Your task to perform on an android device: empty trash in google photos Image 0: 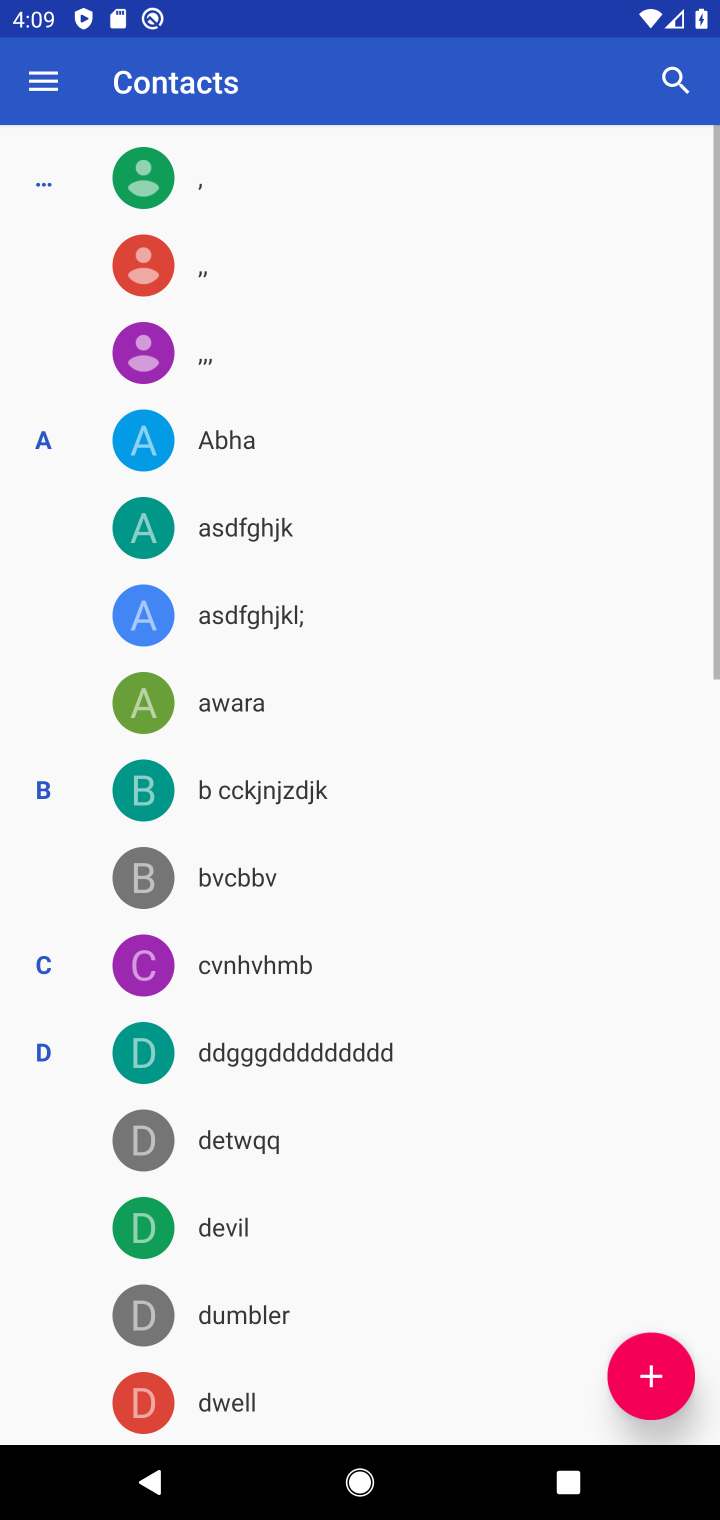
Step 0: drag from (324, 1118) to (346, 22)
Your task to perform on an android device: empty trash in google photos Image 1: 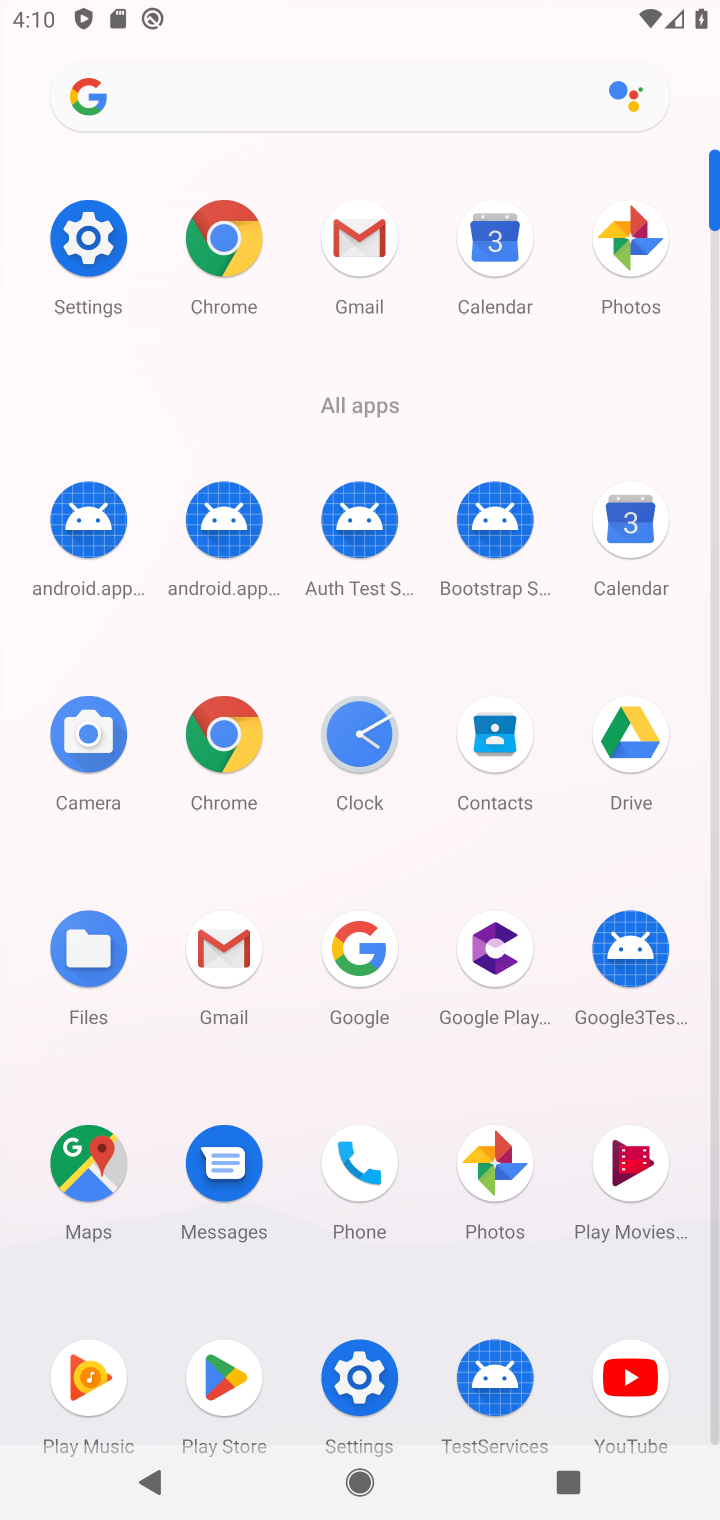
Step 1: click (502, 1175)
Your task to perform on an android device: empty trash in google photos Image 2: 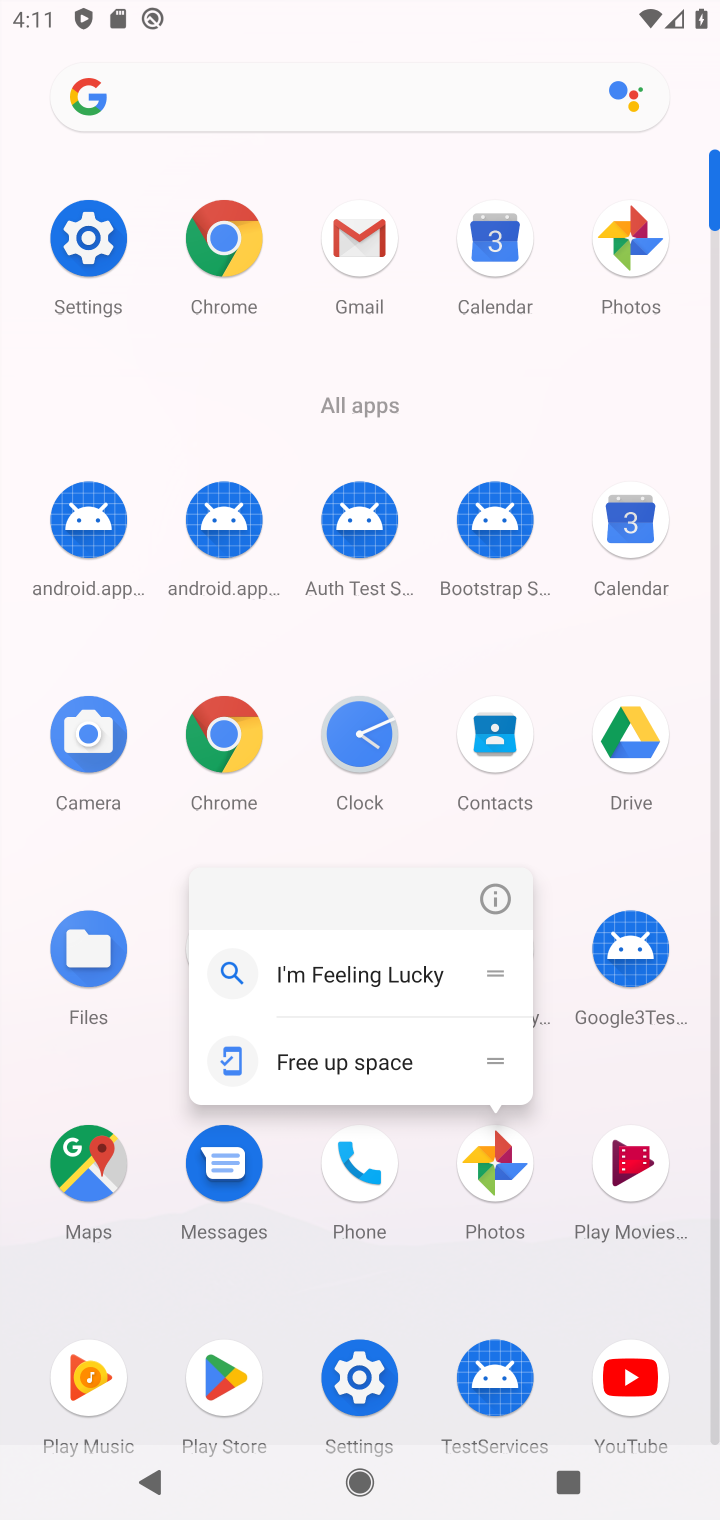
Step 2: click (489, 1197)
Your task to perform on an android device: empty trash in google photos Image 3: 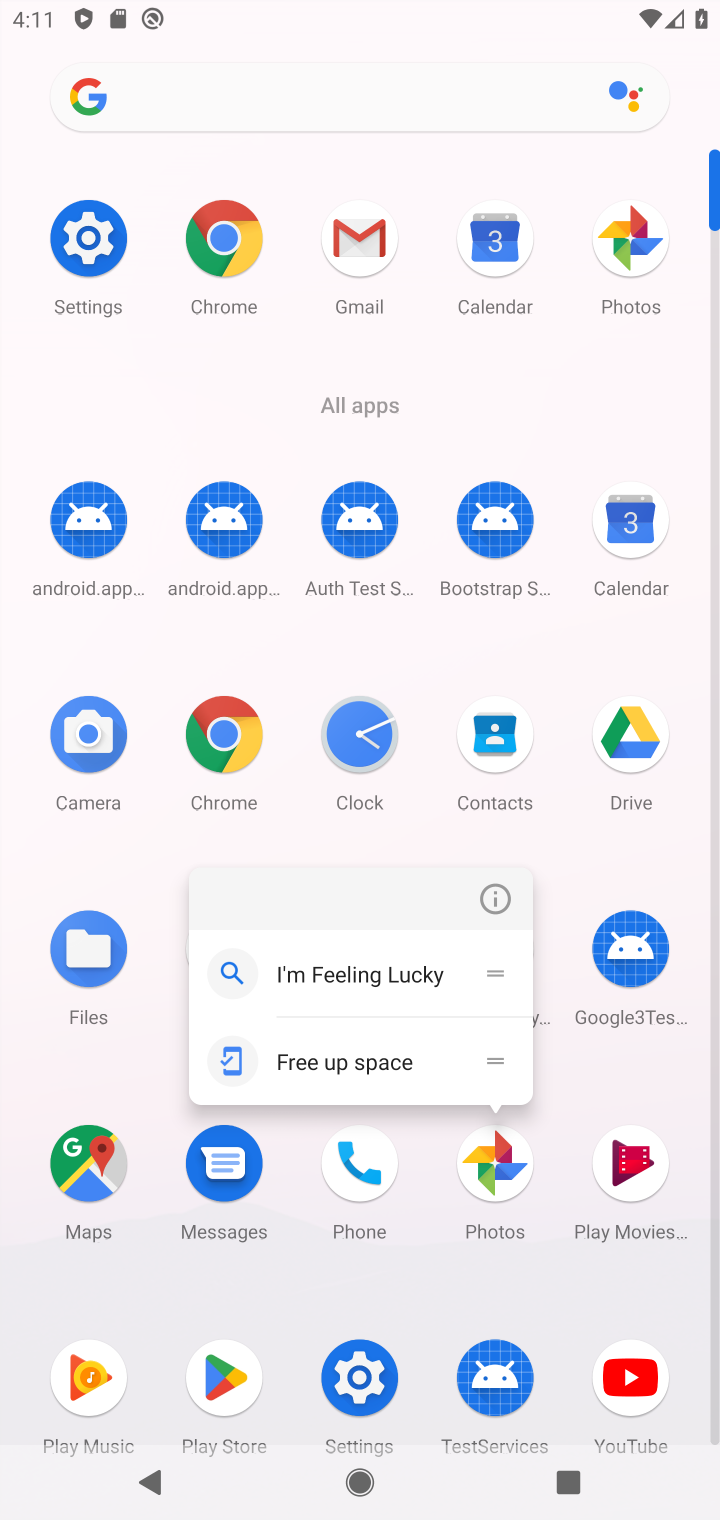
Step 3: click (498, 1168)
Your task to perform on an android device: empty trash in google photos Image 4: 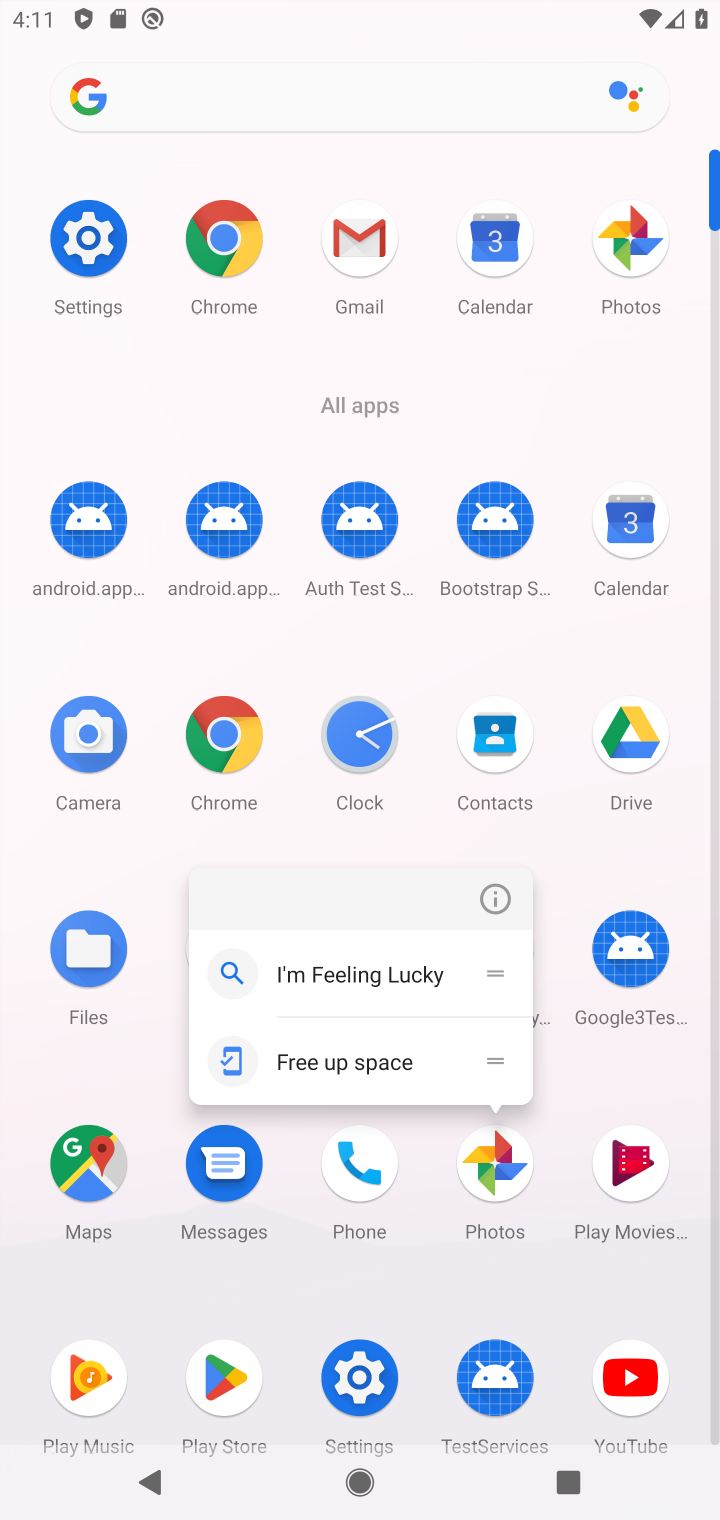
Step 4: click (491, 1166)
Your task to perform on an android device: empty trash in google photos Image 5: 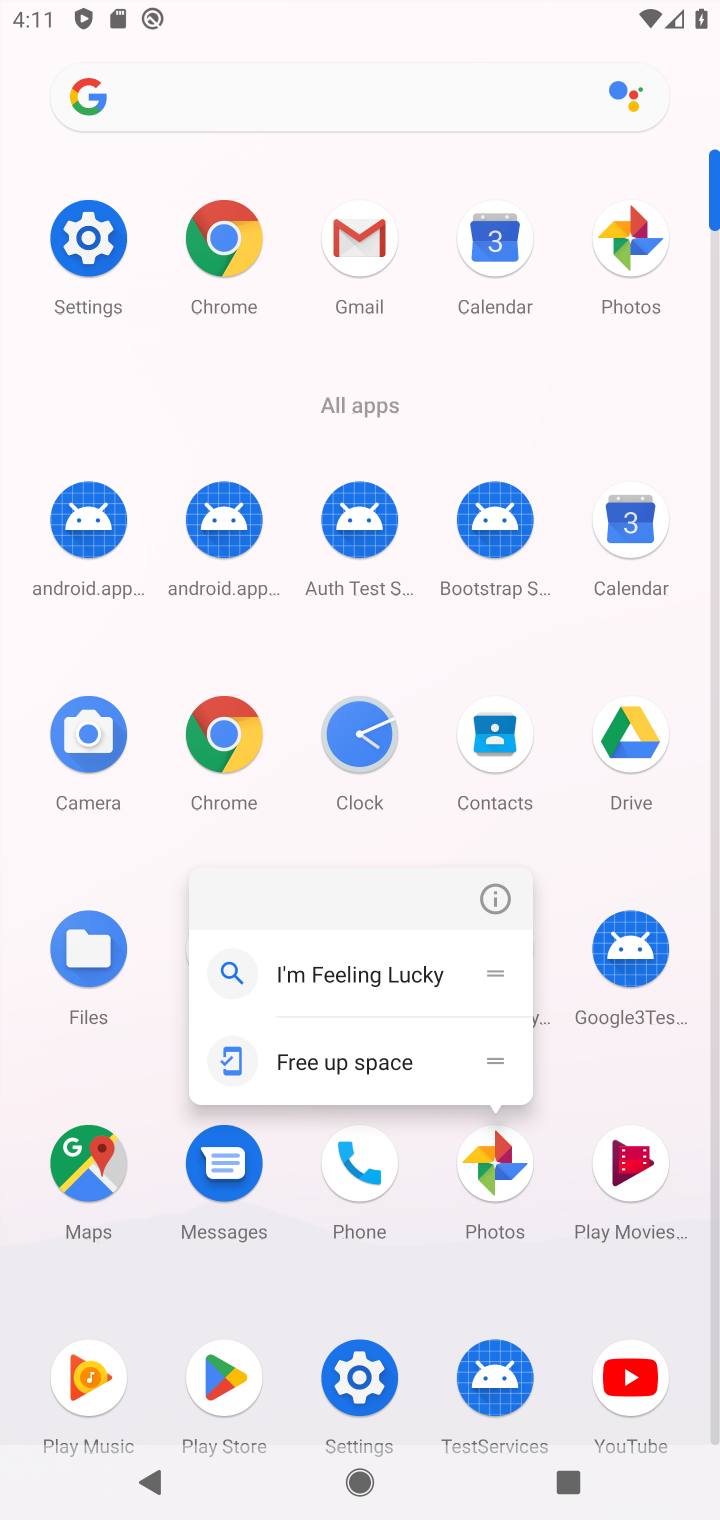
Step 5: click (505, 1166)
Your task to perform on an android device: empty trash in google photos Image 6: 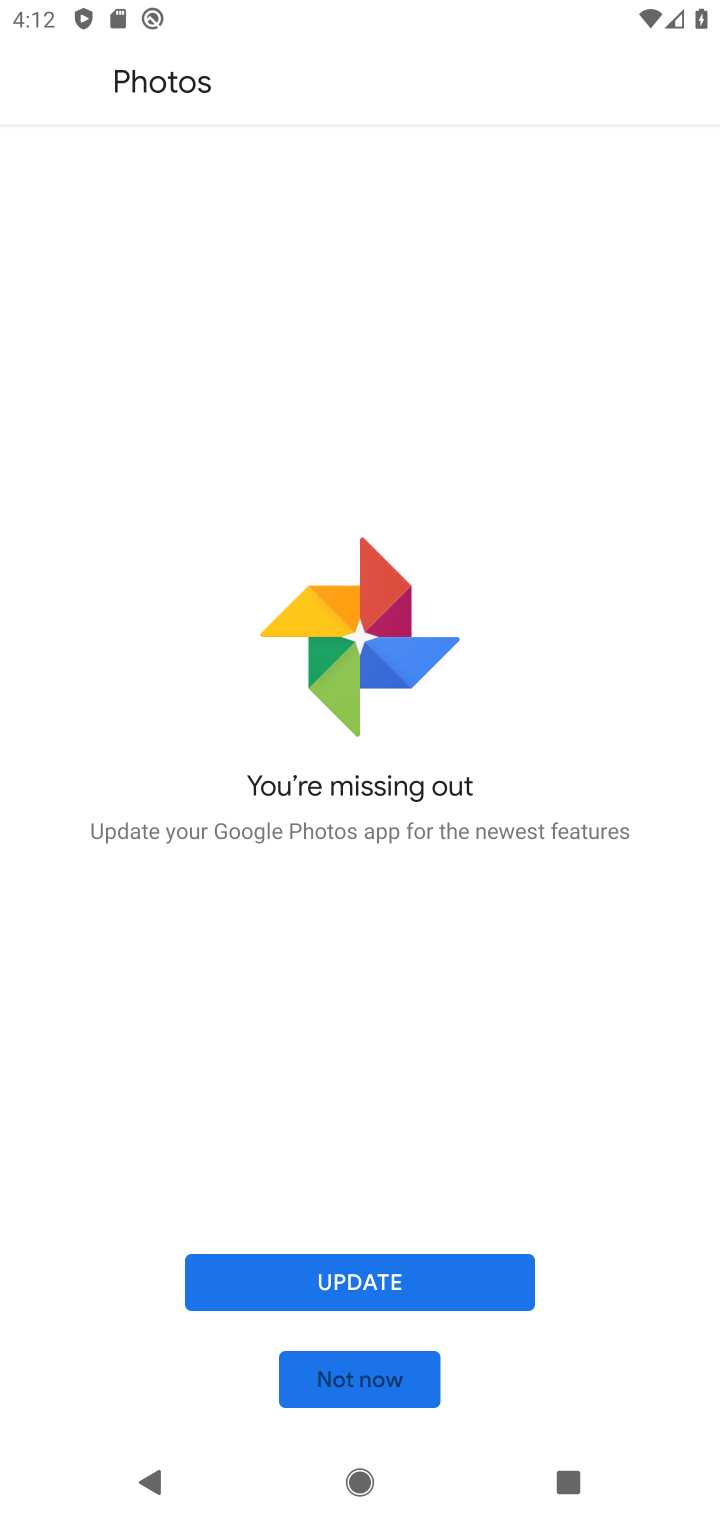
Step 6: click (330, 1352)
Your task to perform on an android device: empty trash in google photos Image 7: 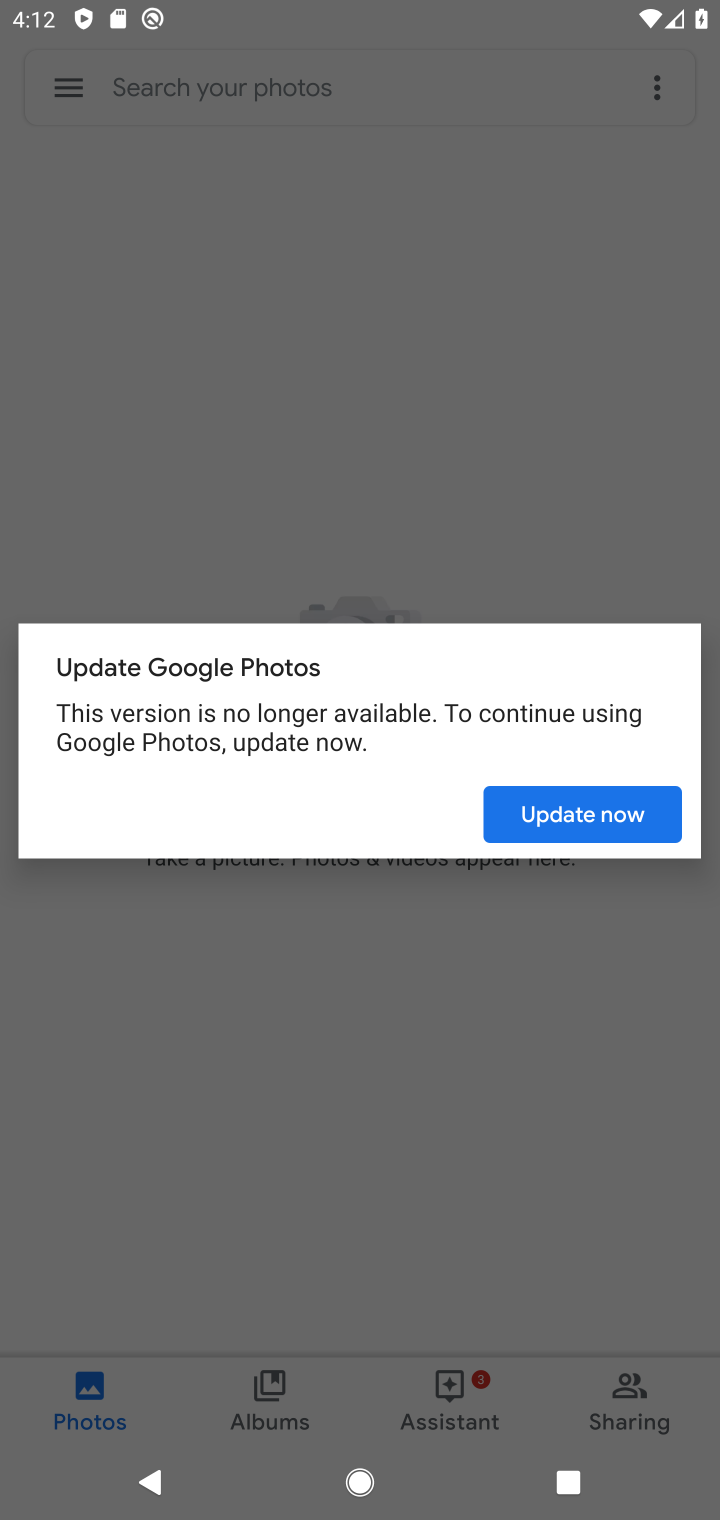
Step 7: click (603, 791)
Your task to perform on an android device: empty trash in google photos Image 8: 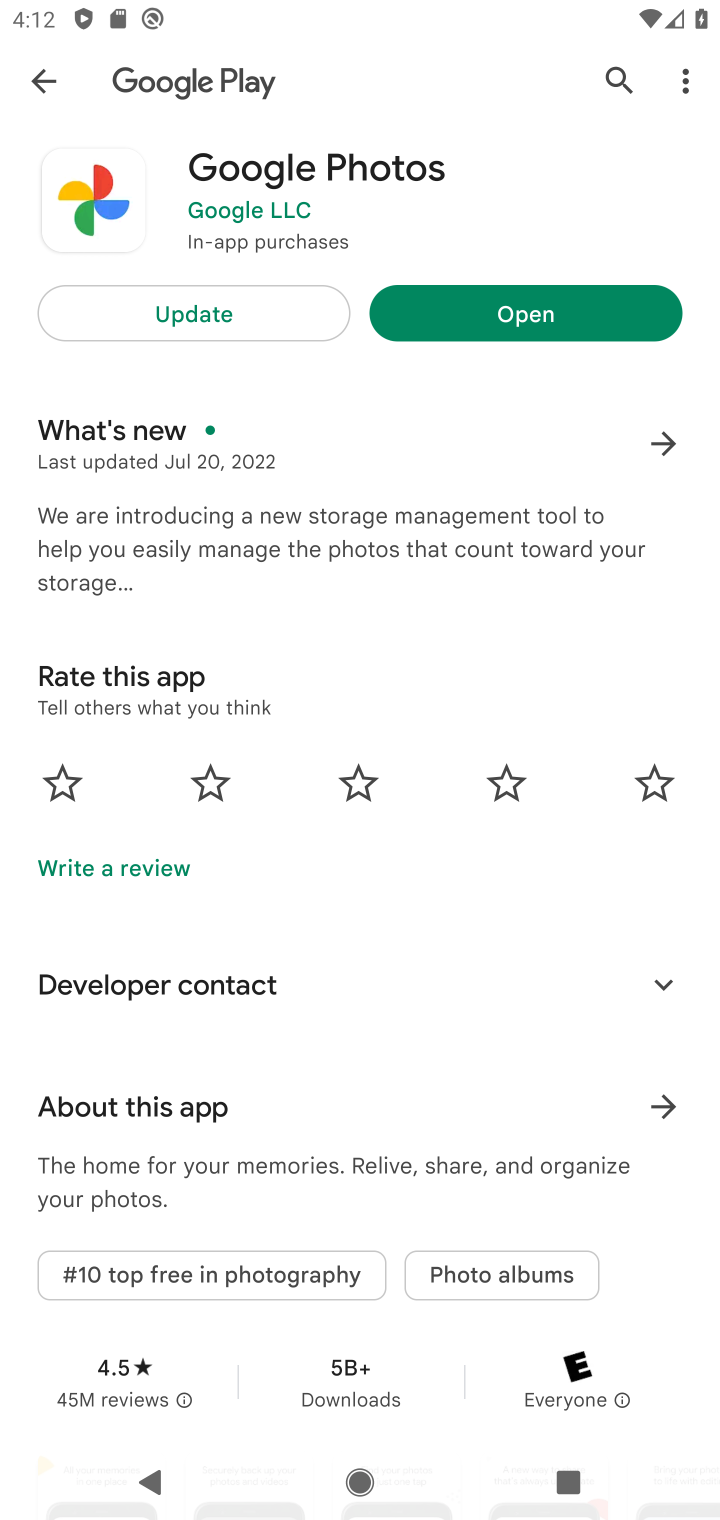
Step 8: click (497, 334)
Your task to perform on an android device: empty trash in google photos Image 9: 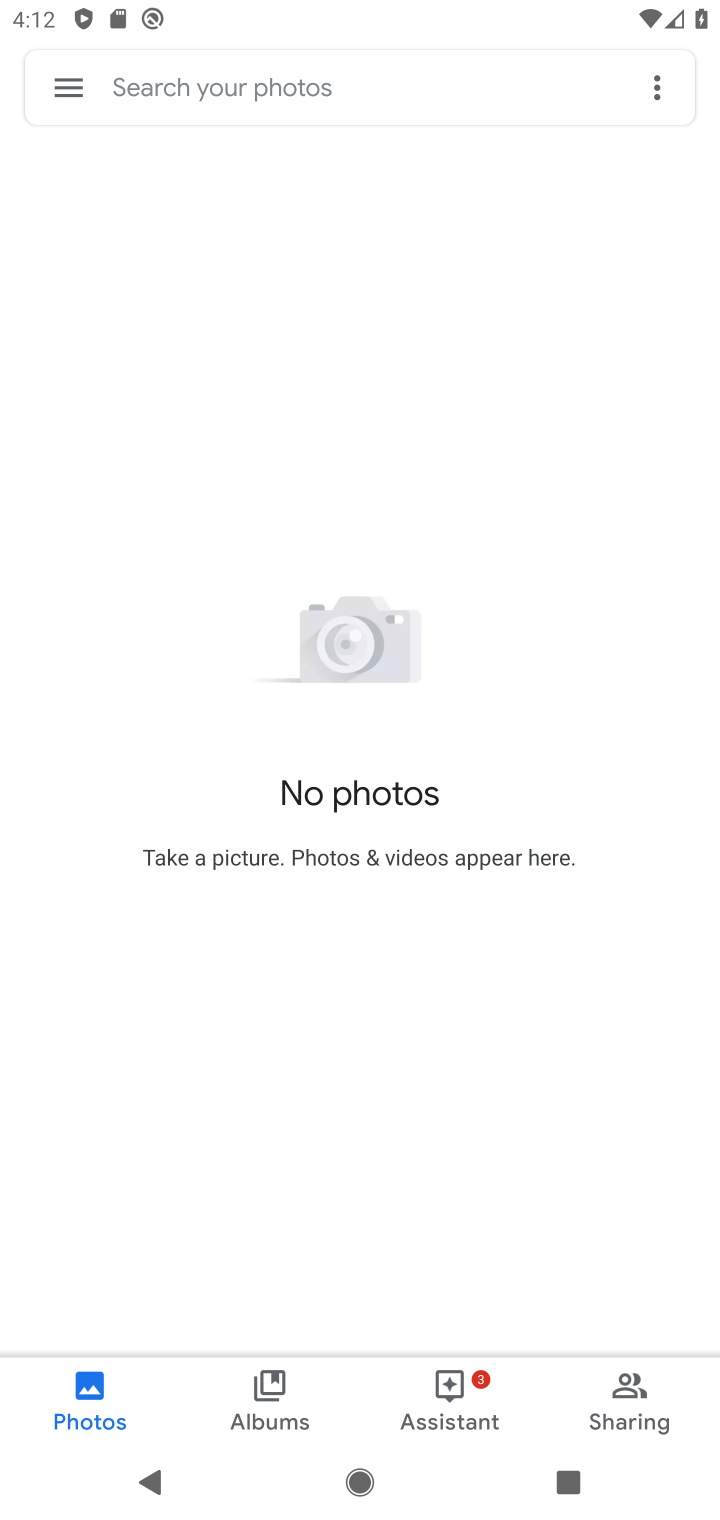
Step 9: click (65, 69)
Your task to perform on an android device: empty trash in google photos Image 10: 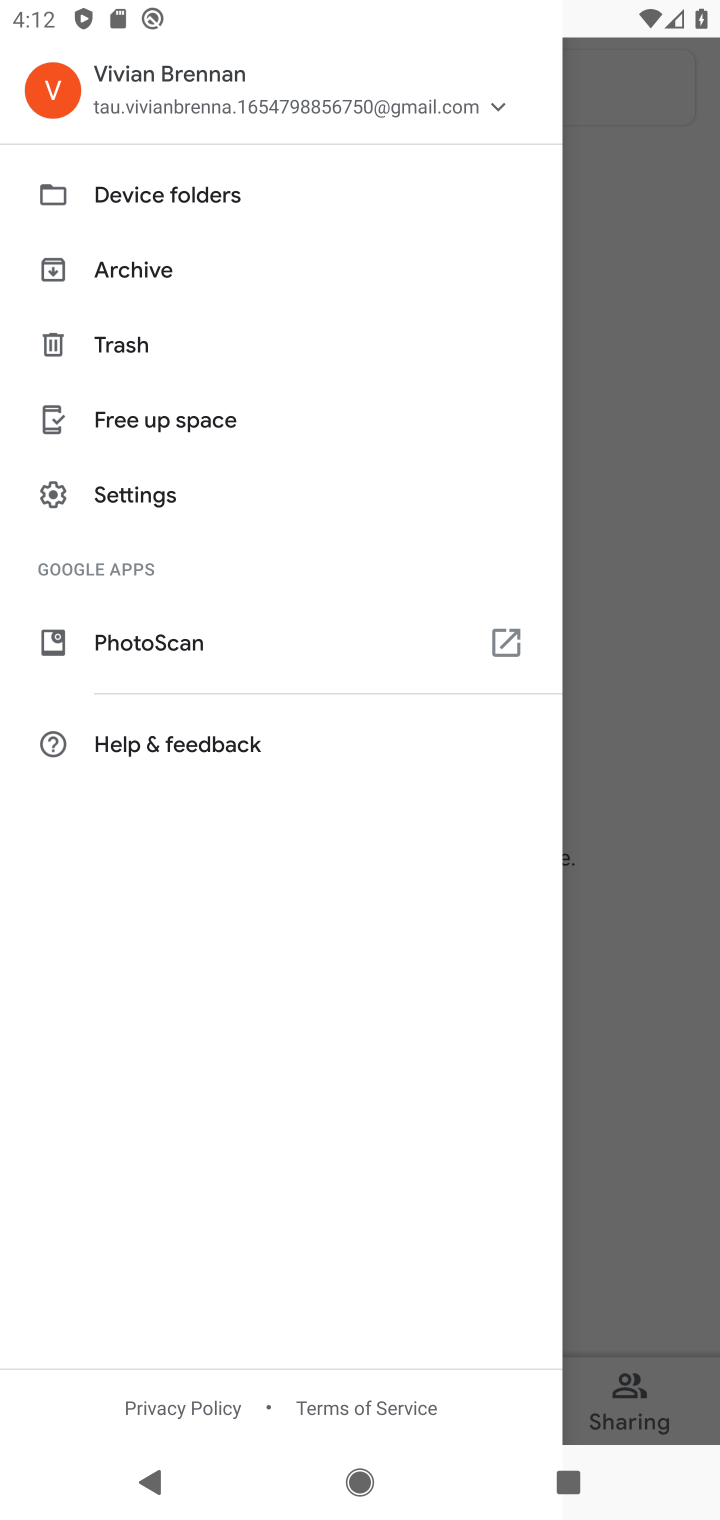
Step 10: click (157, 334)
Your task to perform on an android device: empty trash in google photos Image 11: 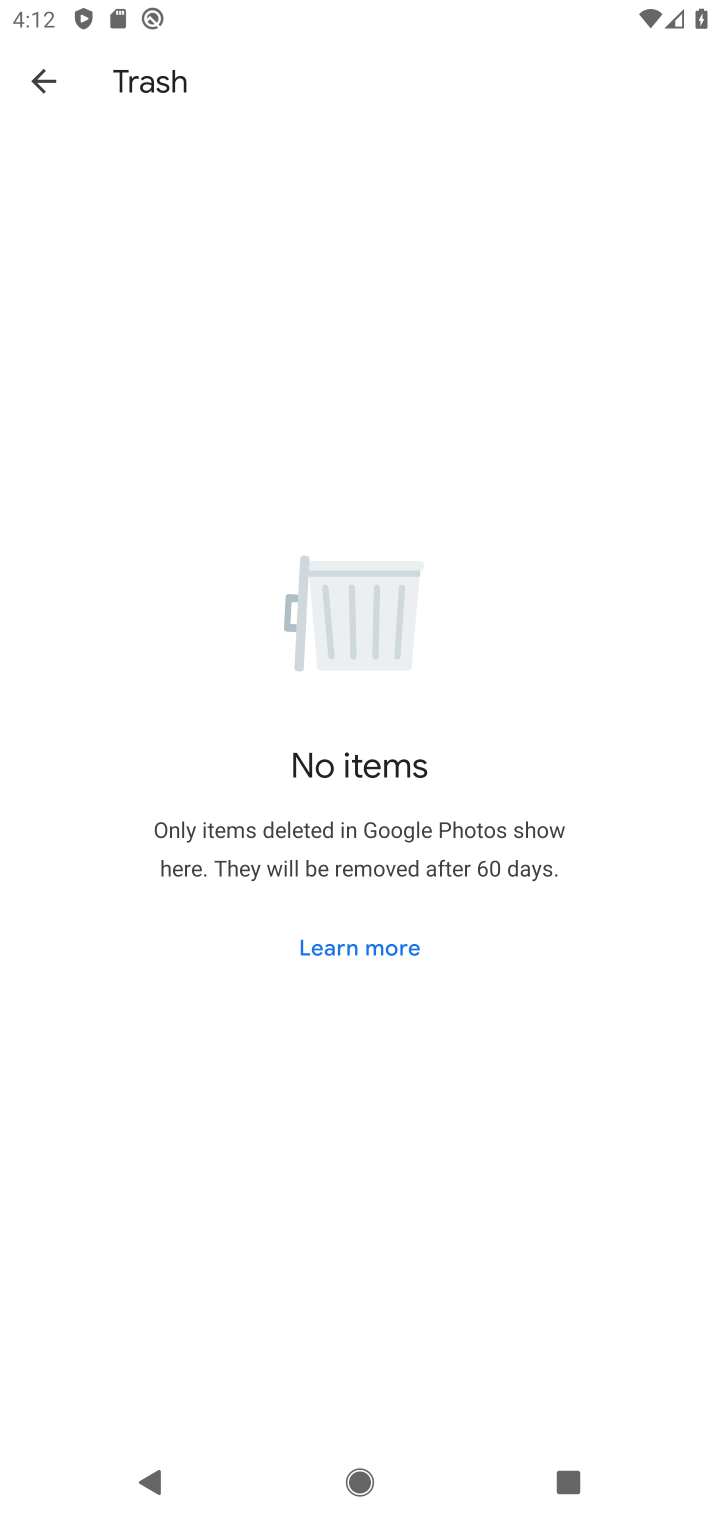
Step 11: task complete